Your task to perform on an android device: turn on sleep mode Image 0: 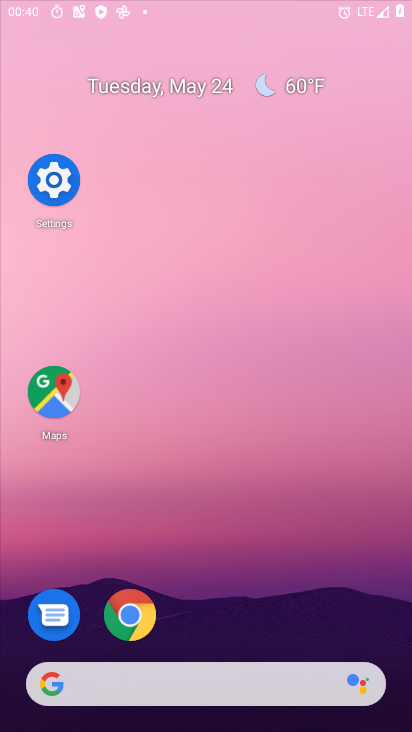
Step 0: drag from (268, 233) to (269, 78)
Your task to perform on an android device: turn on sleep mode Image 1: 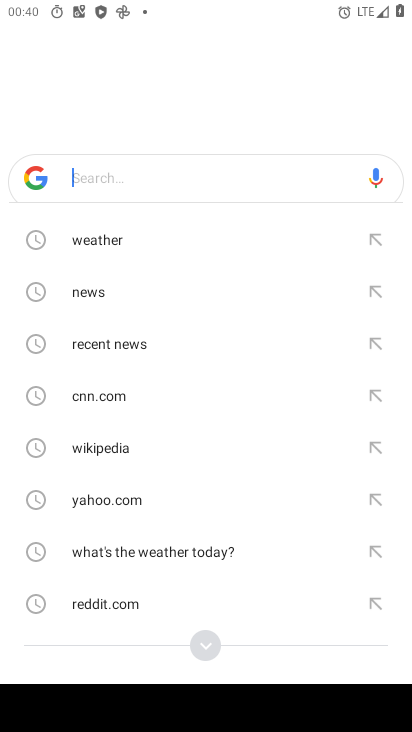
Step 1: press home button
Your task to perform on an android device: turn on sleep mode Image 2: 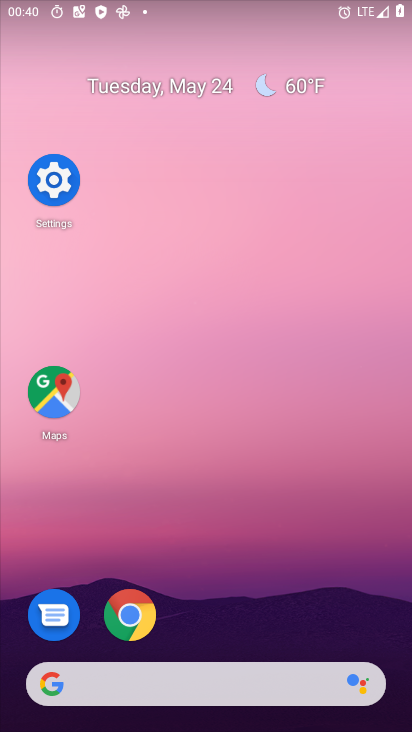
Step 2: drag from (228, 578) to (244, 68)
Your task to perform on an android device: turn on sleep mode Image 3: 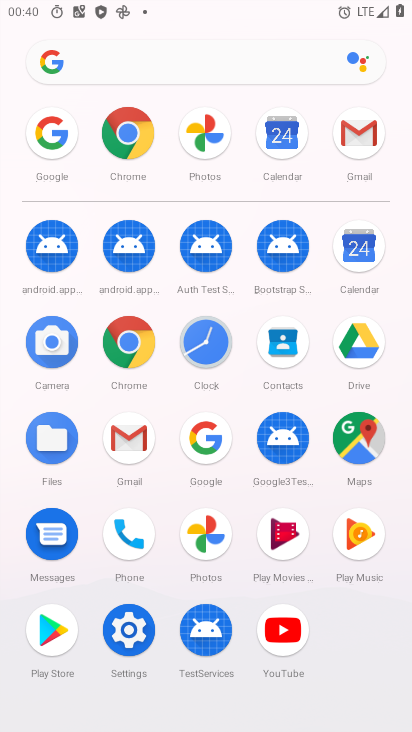
Step 3: click (129, 619)
Your task to perform on an android device: turn on sleep mode Image 4: 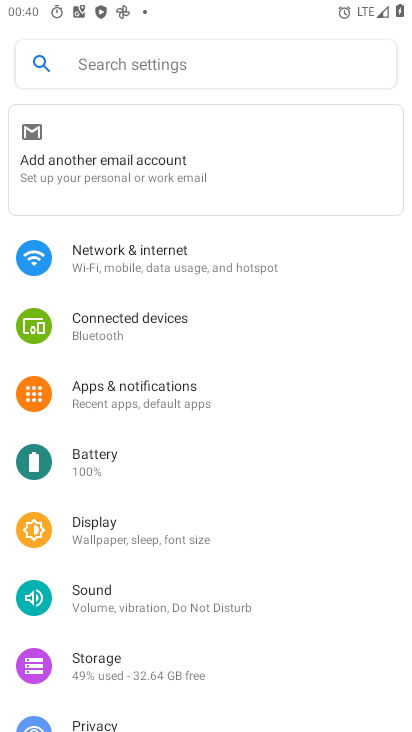
Step 4: drag from (150, 647) to (173, 410)
Your task to perform on an android device: turn on sleep mode Image 5: 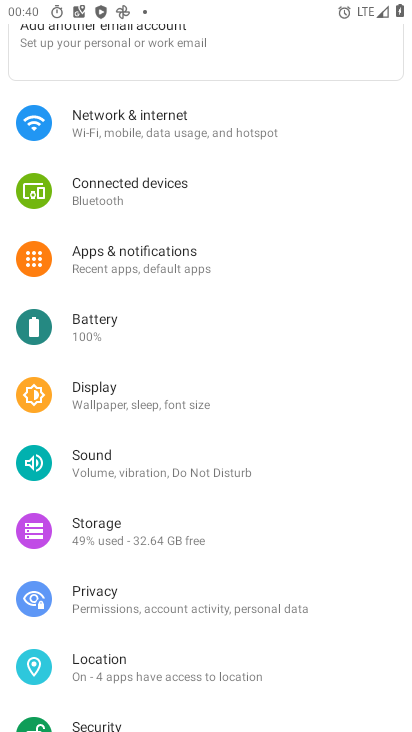
Step 5: click (132, 399)
Your task to perform on an android device: turn on sleep mode Image 6: 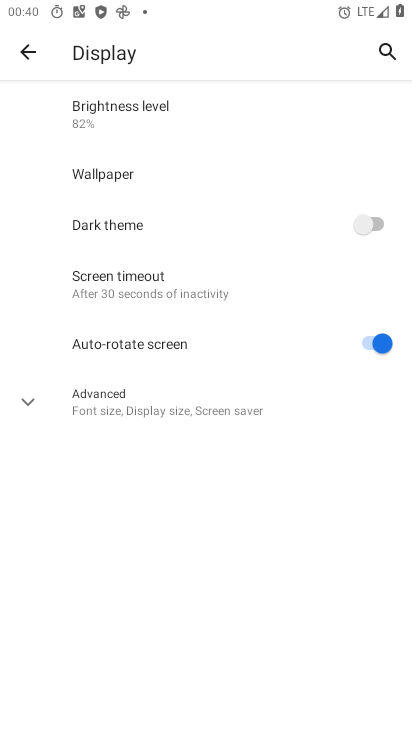
Step 6: click (127, 289)
Your task to perform on an android device: turn on sleep mode Image 7: 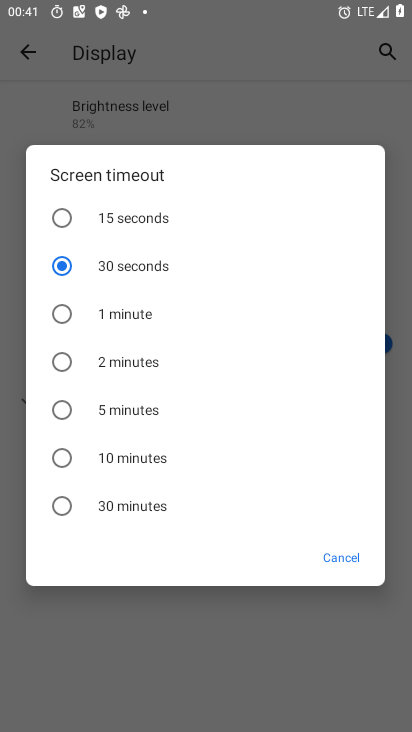
Step 7: task complete